Your task to perform on an android device: check google app version Image 0: 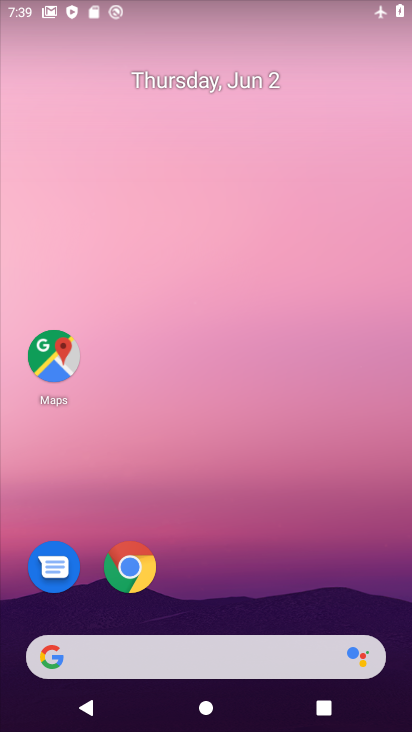
Step 0: drag from (238, 568) to (228, 108)
Your task to perform on an android device: check google app version Image 1: 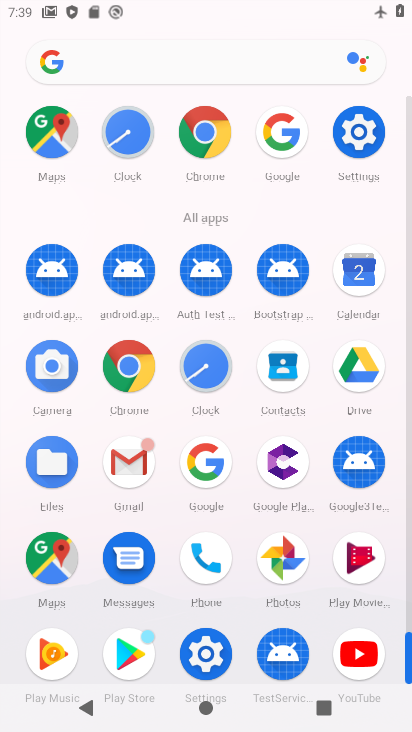
Step 1: click (278, 129)
Your task to perform on an android device: check google app version Image 2: 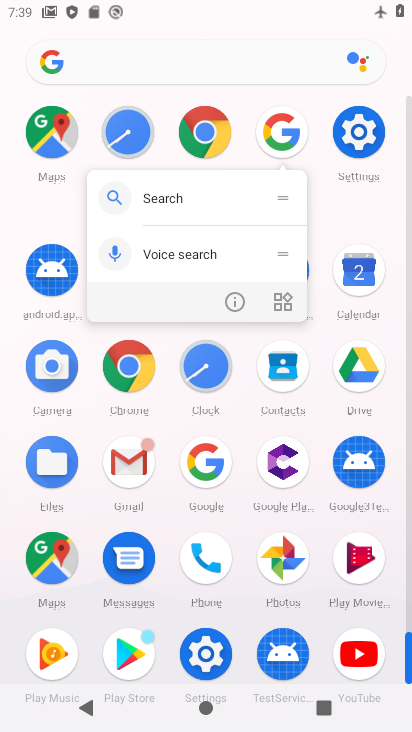
Step 2: click (236, 300)
Your task to perform on an android device: check google app version Image 3: 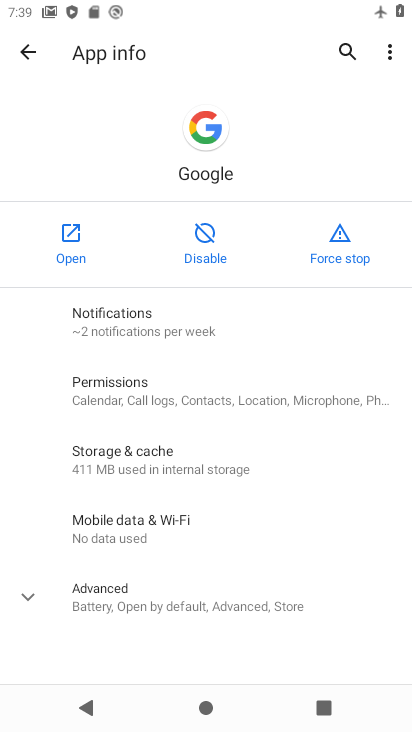
Step 3: click (150, 602)
Your task to perform on an android device: check google app version Image 4: 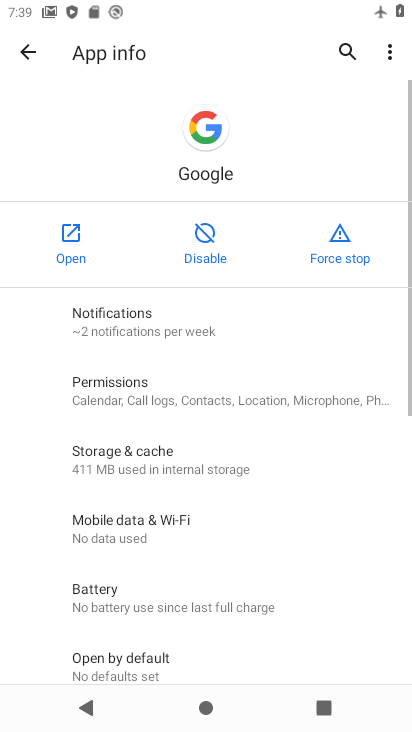
Step 4: task complete